Your task to perform on an android device: turn on translation in the chrome app Image 0: 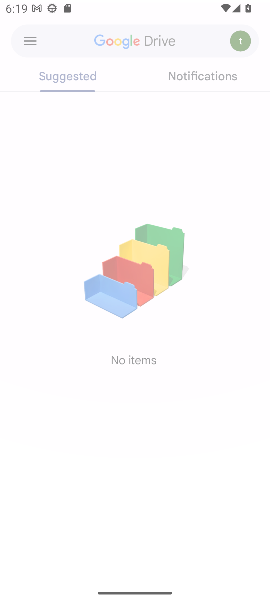
Step 0: drag from (54, 417) to (61, 14)
Your task to perform on an android device: turn on translation in the chrome app Image 1: 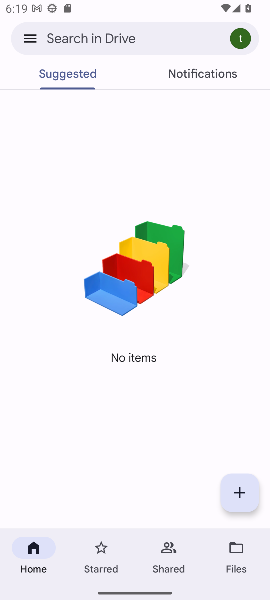
Step 1: press home button
Your task to perform on an android device: turn on translation in the chrome app Image 2: 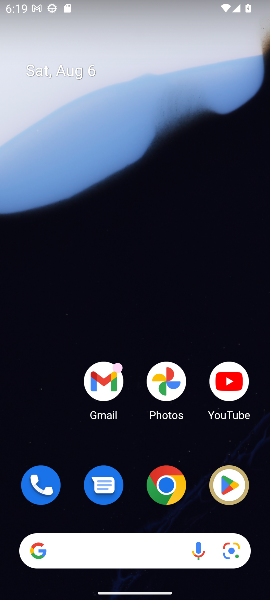
Step 2: click (168, 484)
Your task to perform on an android device: turn on translation in the chrome app Image 3: 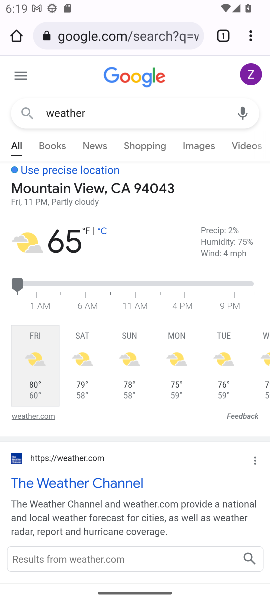
Step 3: click (250, 35)
Your task to perform on an android device: turn on translation in the chrome app Image 4: 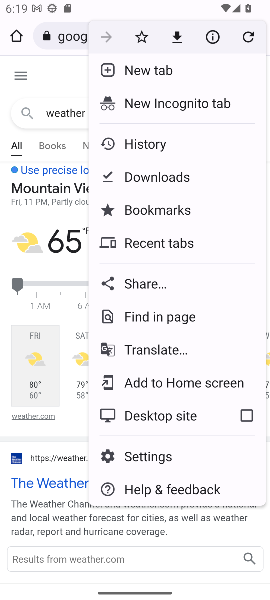
Step 4: click (154, 450)
Your task to perform on an android device: turn on translation in the chrome app Image 5: 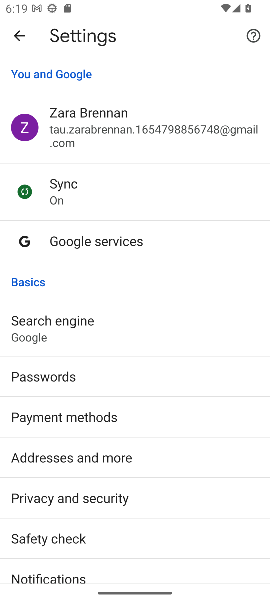
Step 5: drag from (157, 527) to (145, 208)
Your task to perform on an android device: turn on translation in the chrome app Image 6: 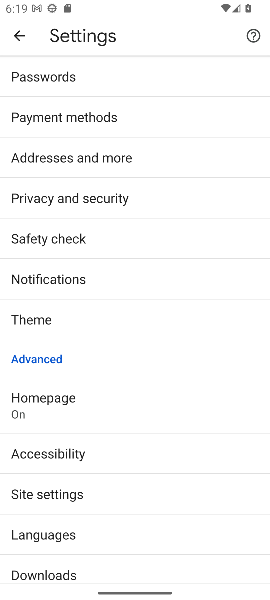
Step 6: click (41, 530)
Your task to perform on an android device: turn on translation in the chrome app Image 7: 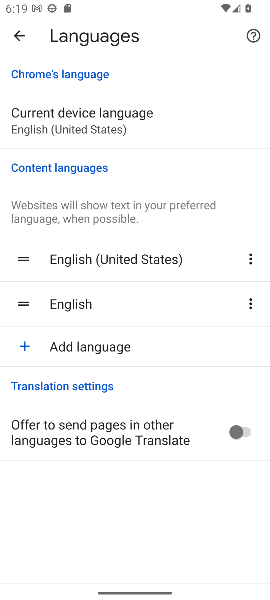
Step 7: click (238, 433)
Your task to perform on an android device: turn on translation in the chrome app Image 8: 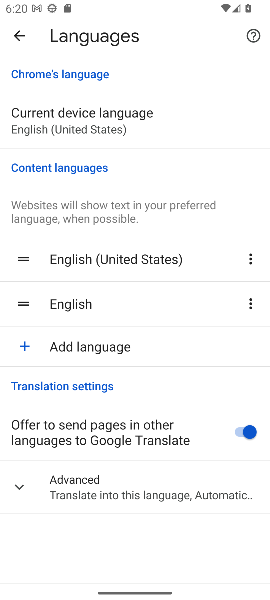
Step 8: task complete